Your task to perform on an android device: open chrome and create a bookmark for the current page Image 0: 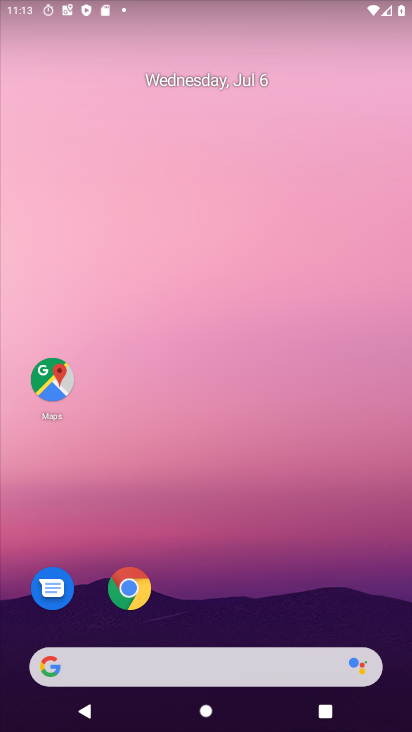
Step 0: drag from (268, 725) to (253, 143)
Your task to perform on an android device: open chrome and create a bookmark for the current page Image 1: 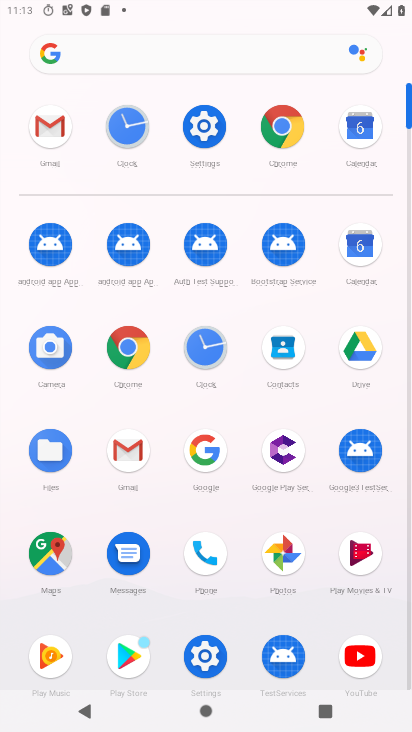
Step 1: click (278, 130)
Your task to perform on an android device: open chrome and create a bookmark for the current page Image 2: 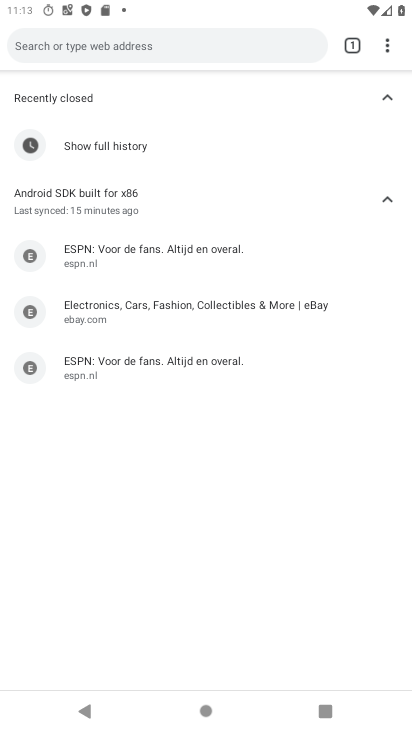
Step 2: click (386, 51)
Your task to perform on an android device: open chrome and create a bookmark for the current page Image 3: 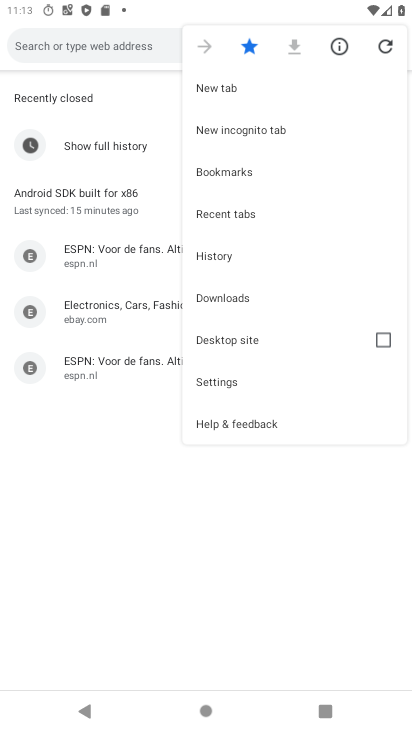
Step 3: task complete